Your task to perform on an android device: delete the emails in spam in the gmail app Image 0: 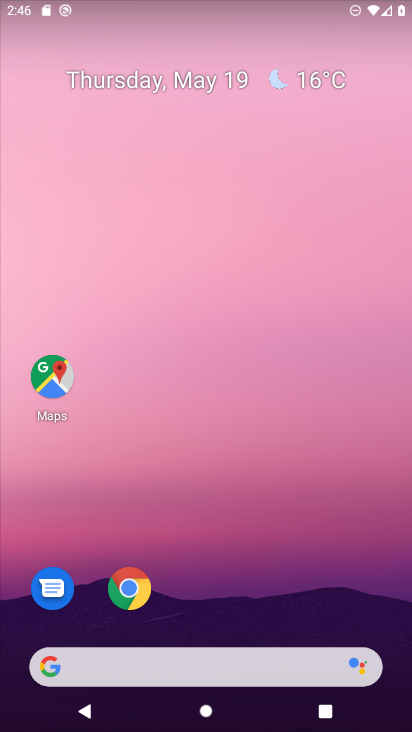
Step 0: drag from (276, 623) to (312, 29)
Your task to perform on an android device: delete the emails in spam in the gmail app Image 1: 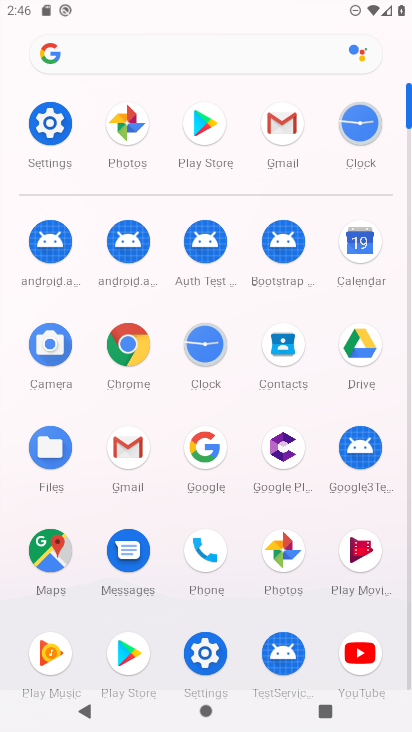
Step 1: click (289, 134)
Your task to perform on an android device: delete the emails in spam in the gmail app Image 2: 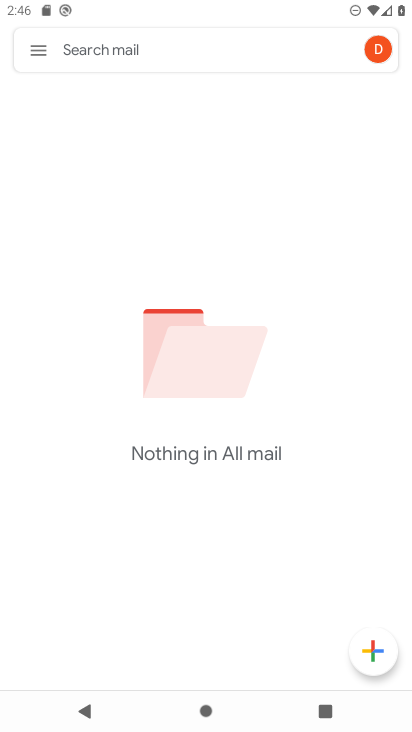
Step 2: click (30, 50)
Your task to perform on an android device: delete the emails in spam in the gmail app Image 3: 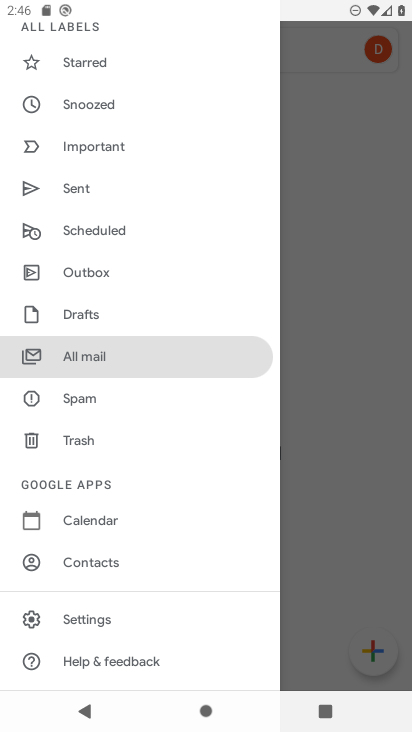
Step 3: click (71, 400)
Your task to perform on an android device: delete the emails in spam in the gmail app Image 4: 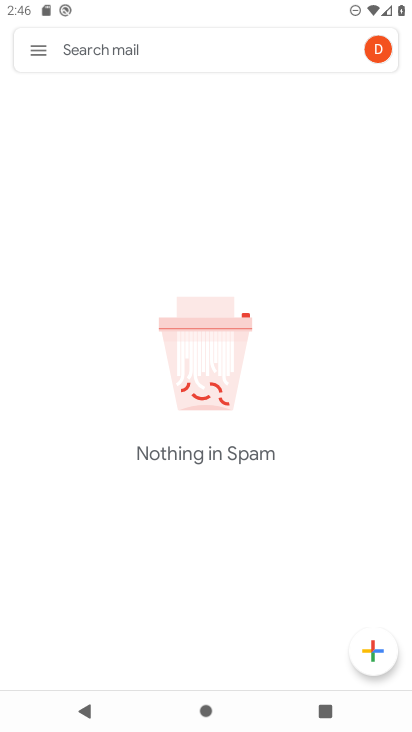
Step 4: task complete